Your task to perform on an android device: Open Maps and search for coffee Image 0: 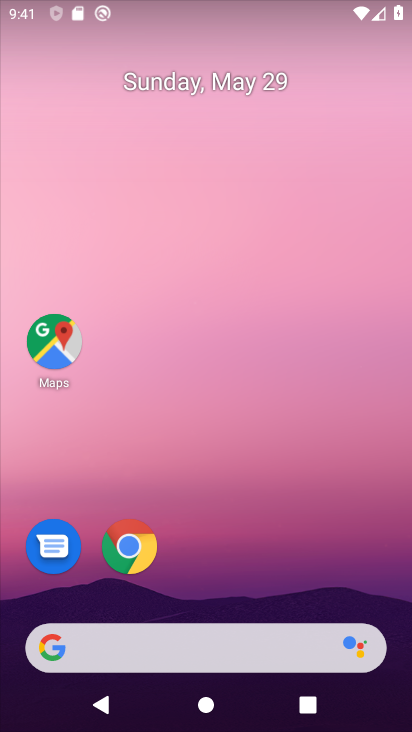
Step 0: click (36, 346)
Your task to perform on an android device: Open Maps and search for coffee Image 1: 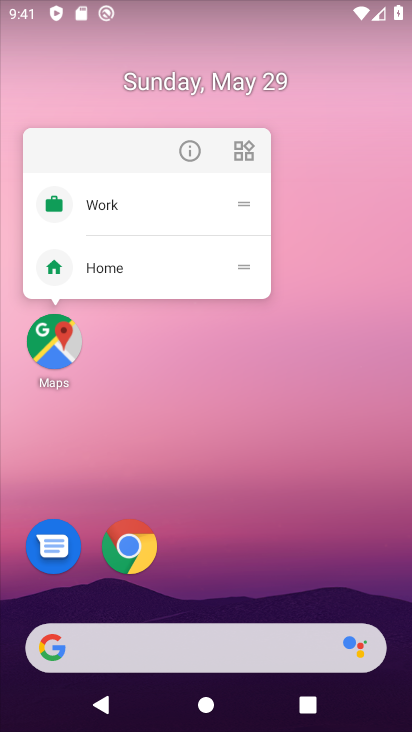
Step 1: click (59, 340)
Your task to perform on an android device: Open Maps and search for coffee Image 2: 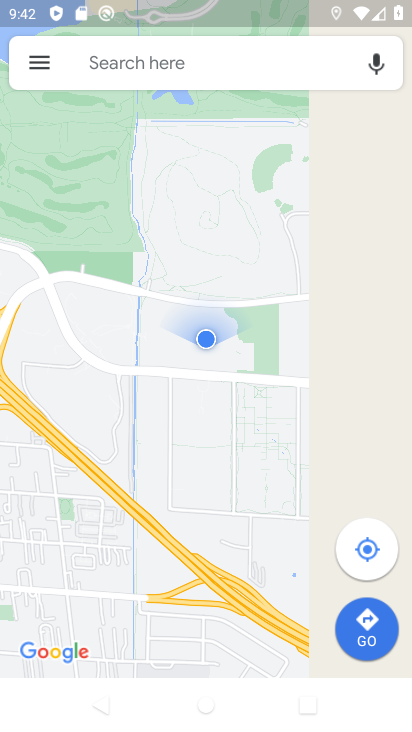
Step 2: click (203, 52)
Your task to perform on an android device: Open Maps and search for coffee Image 3: 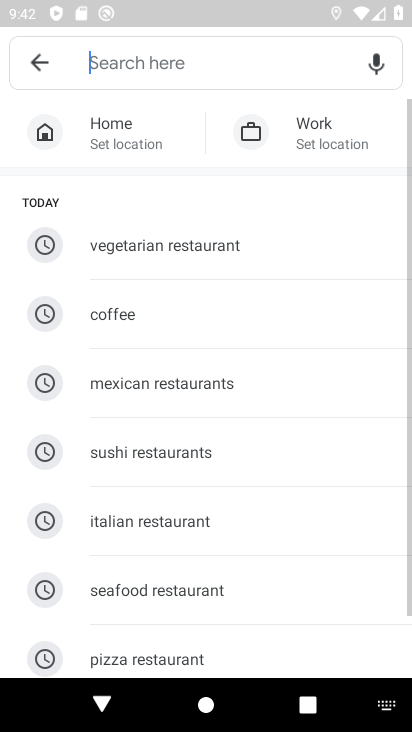
Step 3: click (196, 59)
Your task to perform on an android device: Open Maps and search for coffee Image 4: 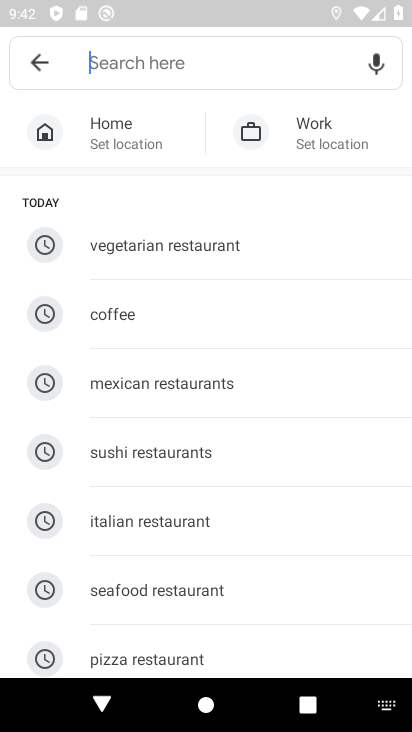
Step 4: click (135, 308)
Your task to perform on an android device: Open Maps and search for coffee Image 5: 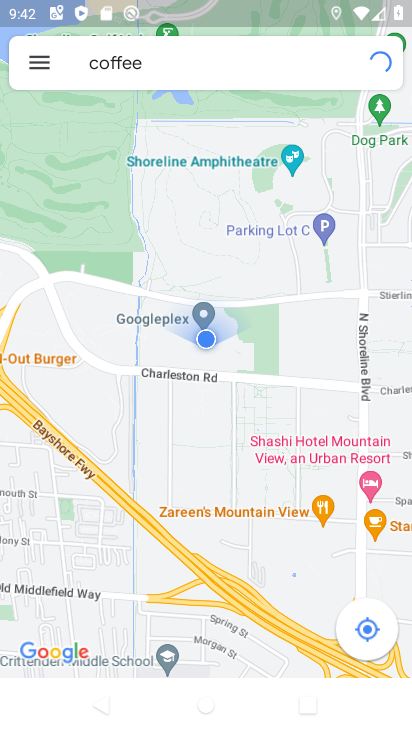
Step 5: task complete